Your task to perform on an android device: set an alarm Image 0: 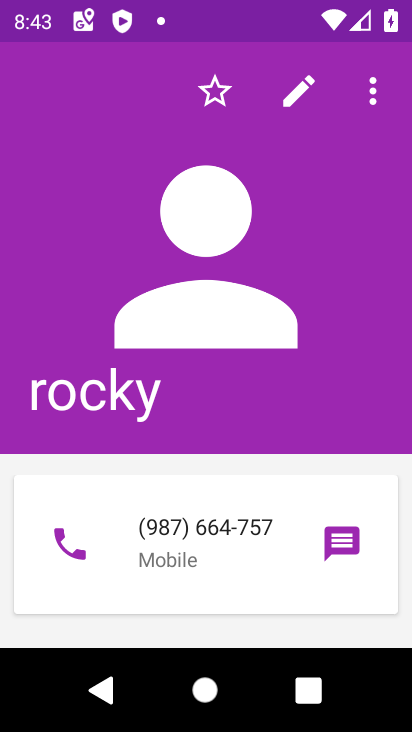
Step 0: press home button
Your task to perform on an android device: set an alarm Image 1: 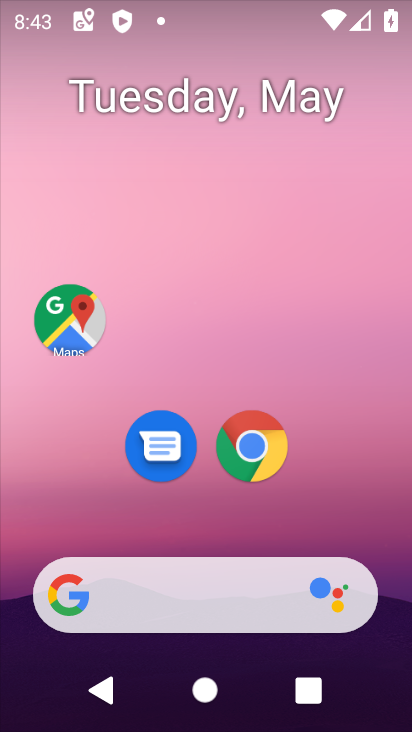
Step 1: drag from (370, 559) to (361, 13)
Your task to perform on an android device: set an alarm Image 2: 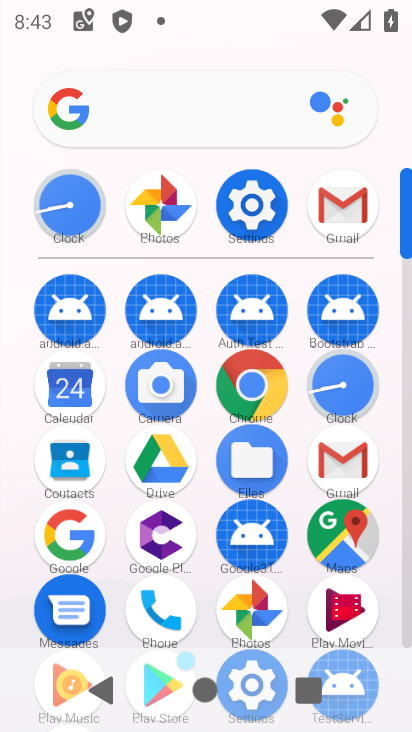
Step 2: click (73, 204)
Your task to perform on an android device: set an alarm Image 3: 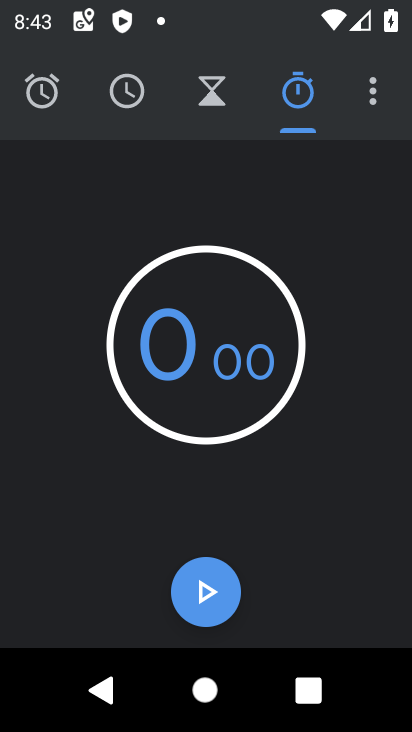
Step 3: click (50, 99)
Your task to perform on an android device: set an alarm Image 4: 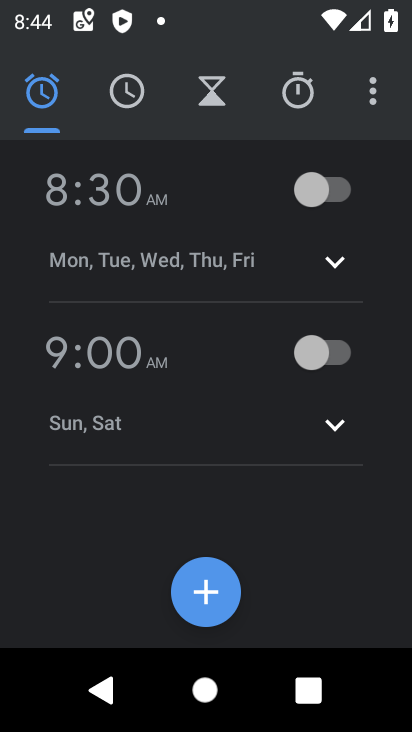
Step 4: click (207, 594)
Your task to perform on an android device: set an alarm Image 5: 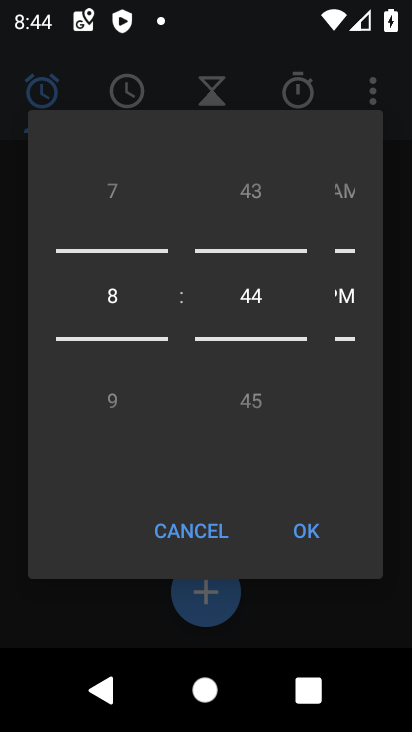
Step 5: drag from (108, 289) to (110, 581)
Your task to perform on an android device: set an alarm Image 6: 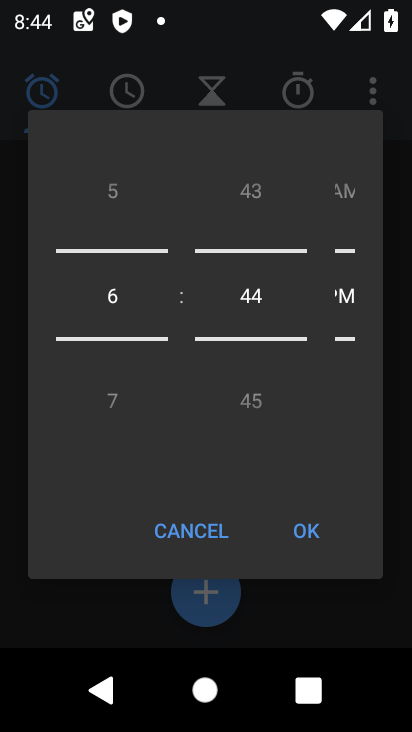
Step 6: drag from (262, 298) to (265, 230)
Your task to perform on an android device: set an alarm Image 7: 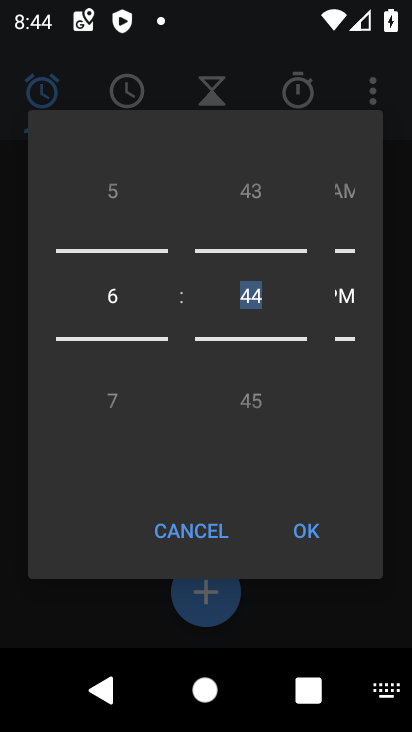
Step 7: drag from (344, 295) to (344, 363)
Your task to perform on an android device: set an alarm Image 8: 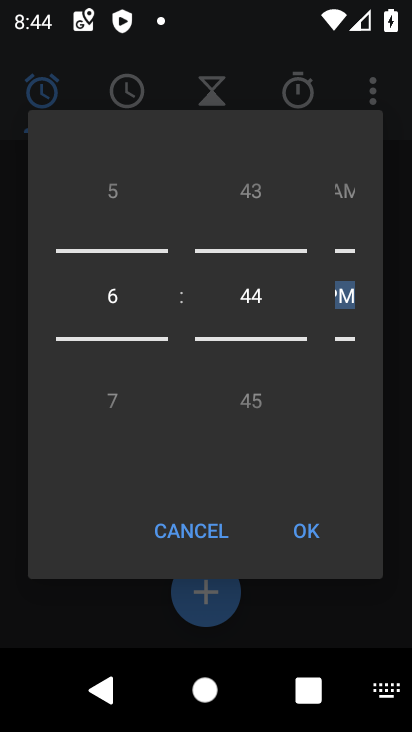
Step 8: drag from (345, 292) to (348, 409)
Your task to perform on an android device: set an alarm Image 9: 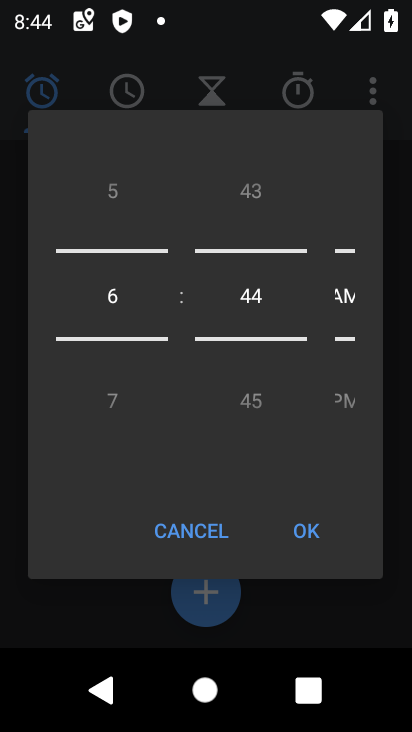
Step 9: drag from (251, 304) to (251, 148)
Your task to perform on an android device: set an alarm Image 10: 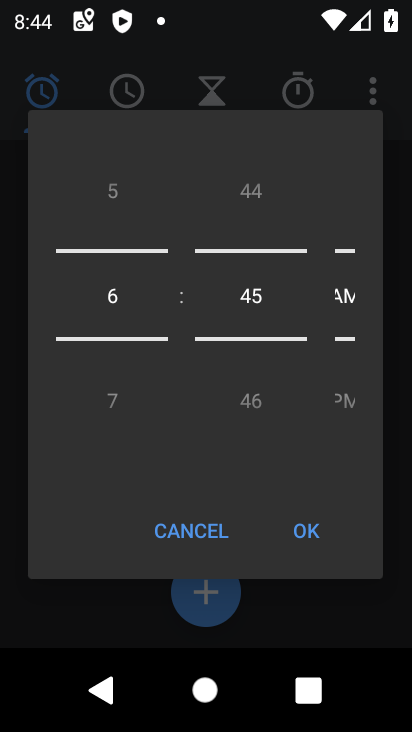
Step 10: click (318, 534)
Your task to perform on an android device: set an alarm Image 11: 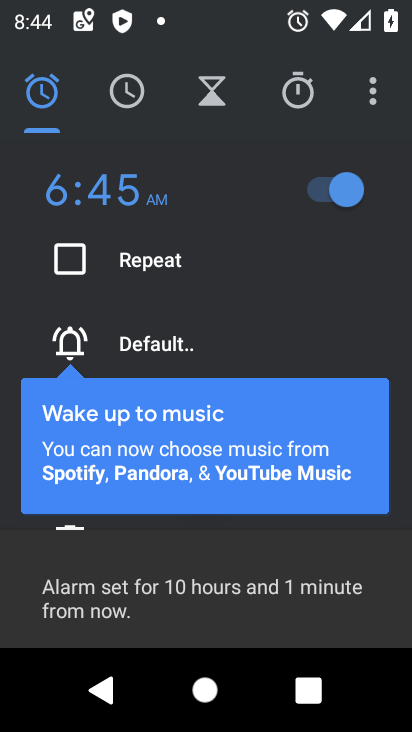
Step 11: task complete